Your task to perform on an android device: Open accessibility settings Image 0: 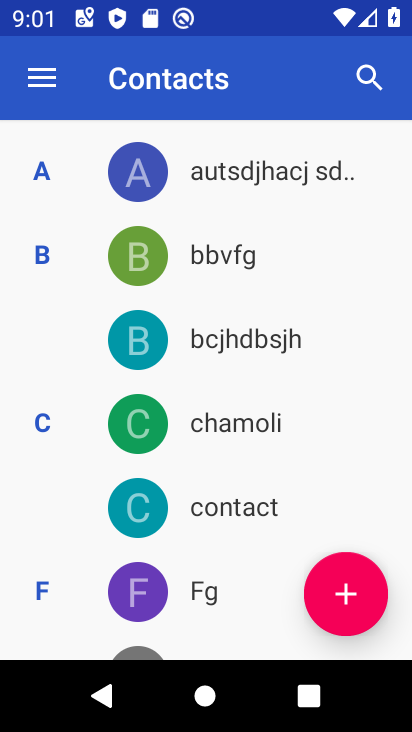
Step 0: press back button
Your task to perform on an android device: Open accessibility settings Image 1: 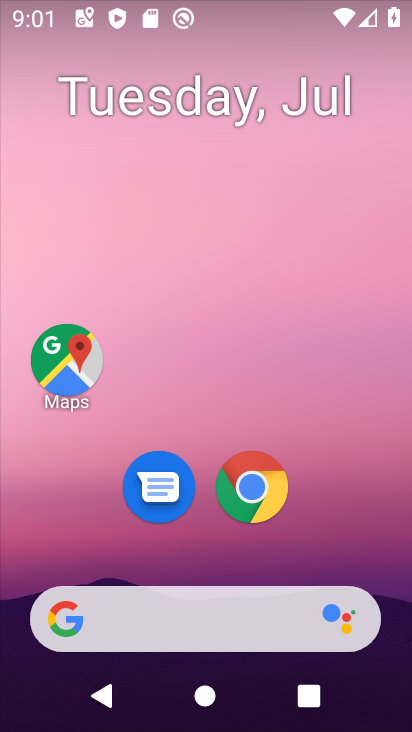
Step 1: drag from (93, 548) to (255, 13)
Your task to perform on an android device: Open accessibility settings Image 2: 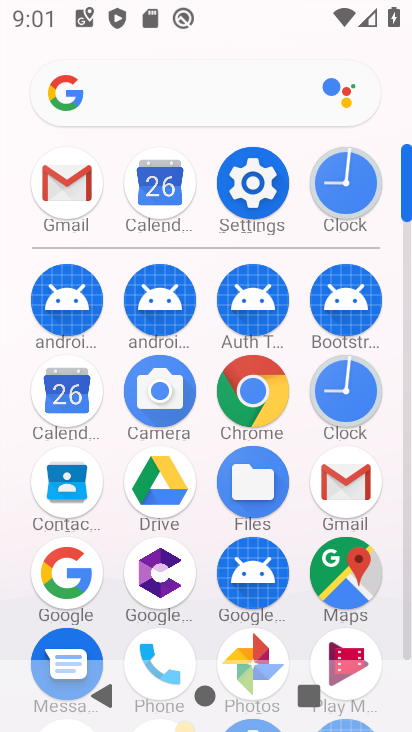
Step 2: click (254, 175)
Your task to perform on an android device: Open accessibility settings Image 3: 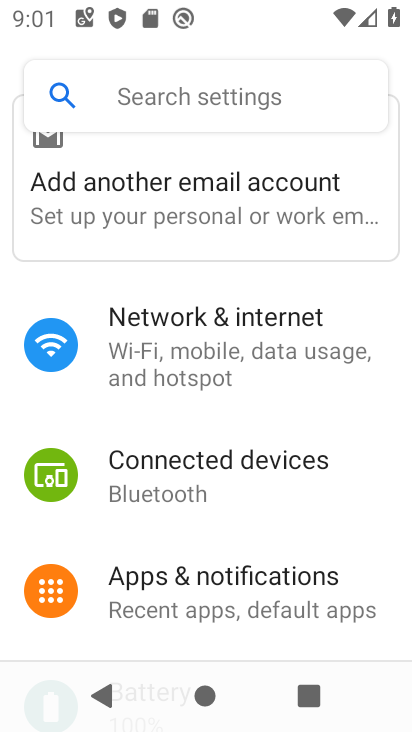
Step 3: drag from (162, 597) to (253, 157)
Your task to perform on an android device: Open accessibility settings Image 4: 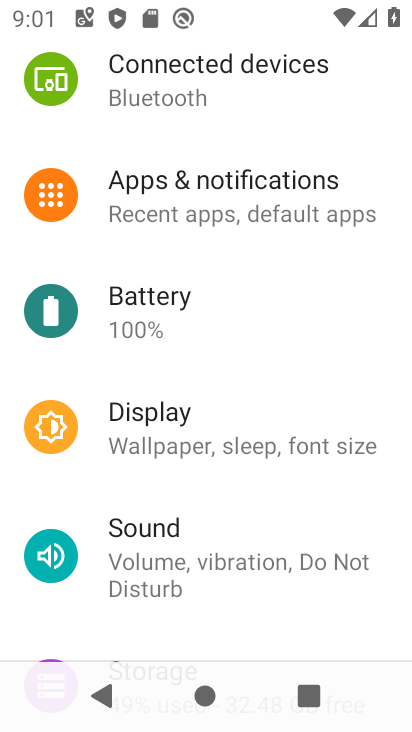
Step 4: drag from (181, 580) to (276, 1)
Your task to perform on an android device: Open accessibility settings Image 5: 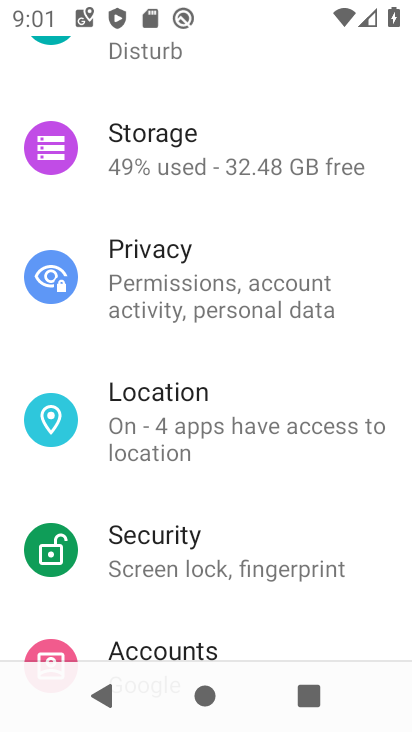
Step 5: drag from (154, 626) to (267, 62)
Your task to perform on an android device: Open accessibility settings Image 6: 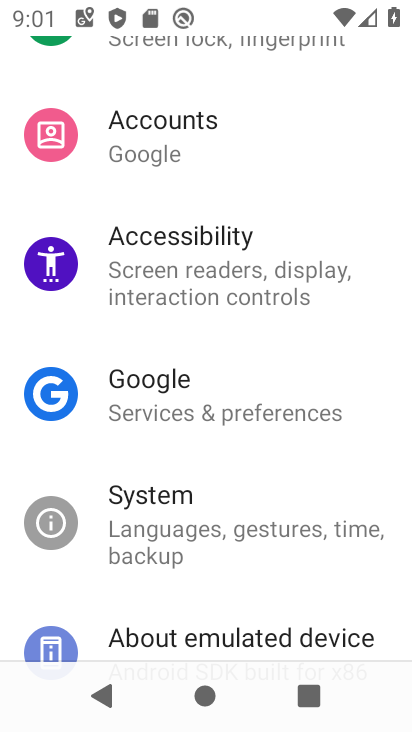
Step 6: click (147, 267)
Your task to perform on an android device: Open accessibility settings Image 7: 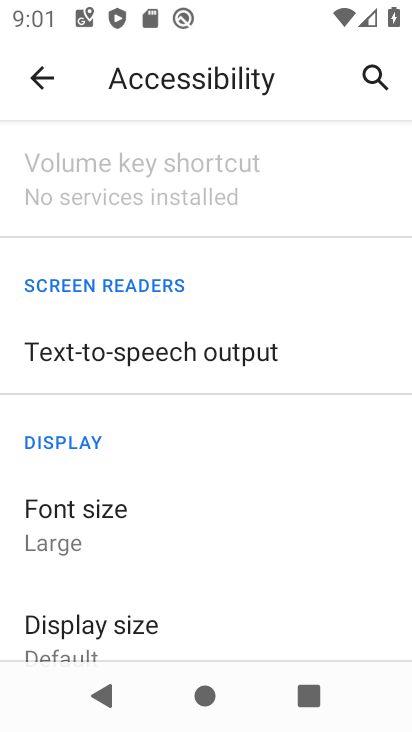
Step 7: task complete